Your task to perform on an android device: turn on showing notifications on the lock screen Image 0: 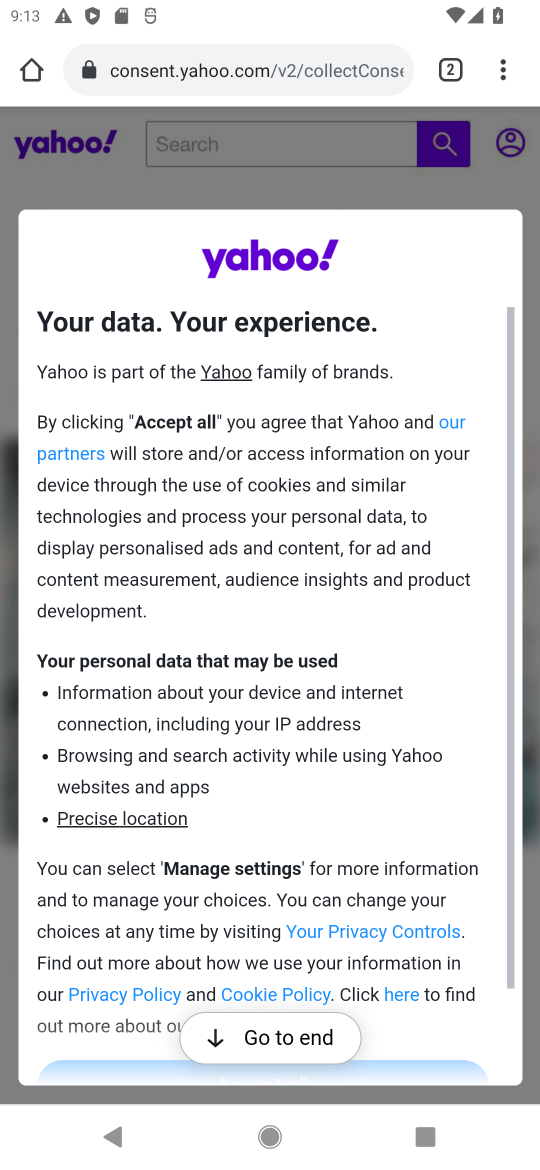
Step 0: press home button
Your task to perform on an android device: turn on showing notifications on the lock screen Image 1: 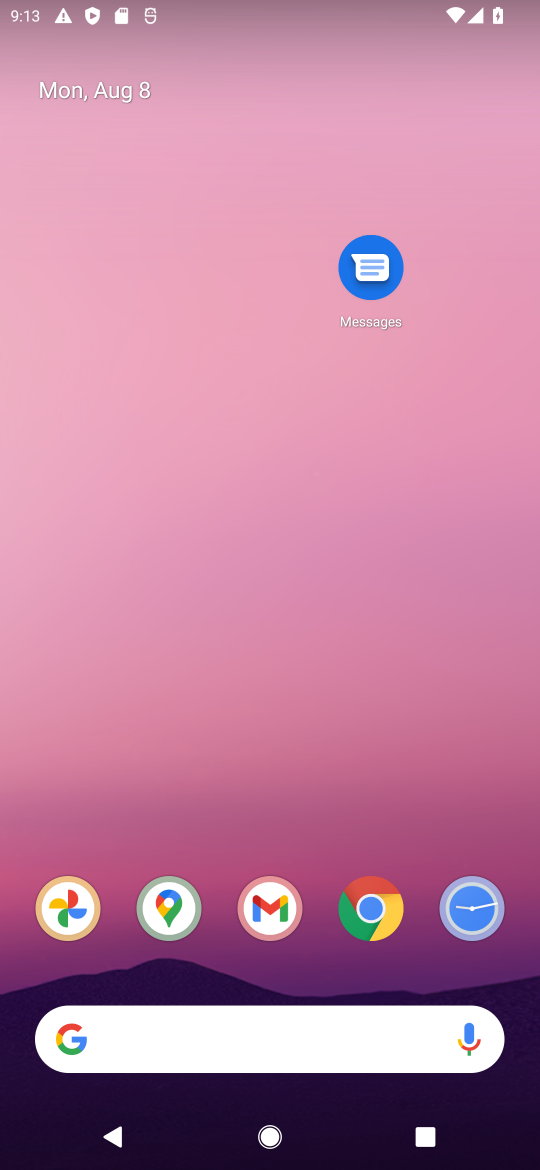
Step 1: drag from (256, 814) to (303, 32)
Your task to perform on an android device: turn on showing notifications on the lock screen Image 2: 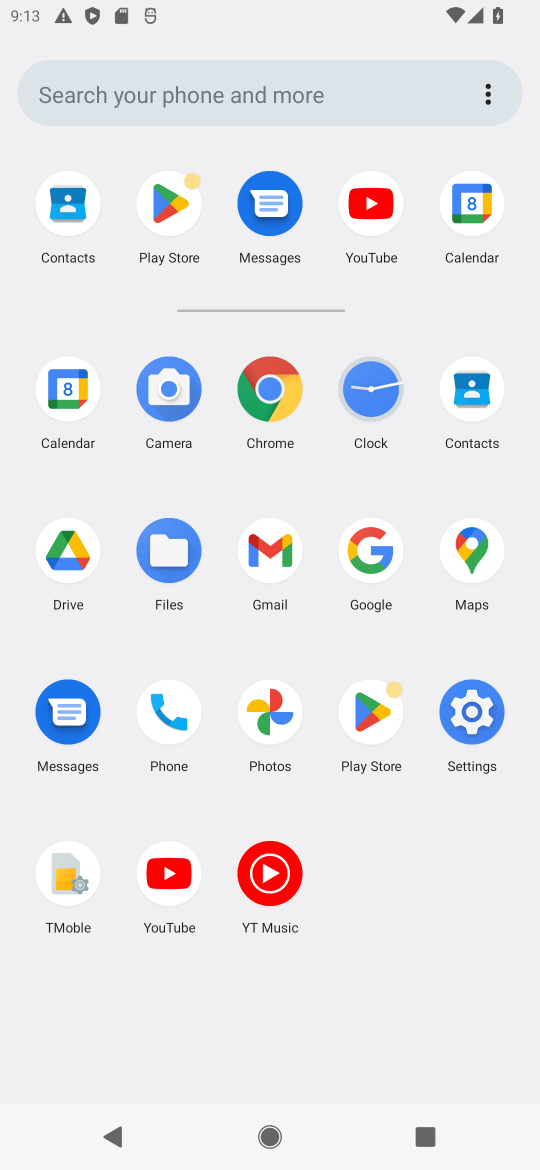
Step 2: click (498, 721)
Your task to perform on an android device: turn on showing notifications on the lock screen Image 3: 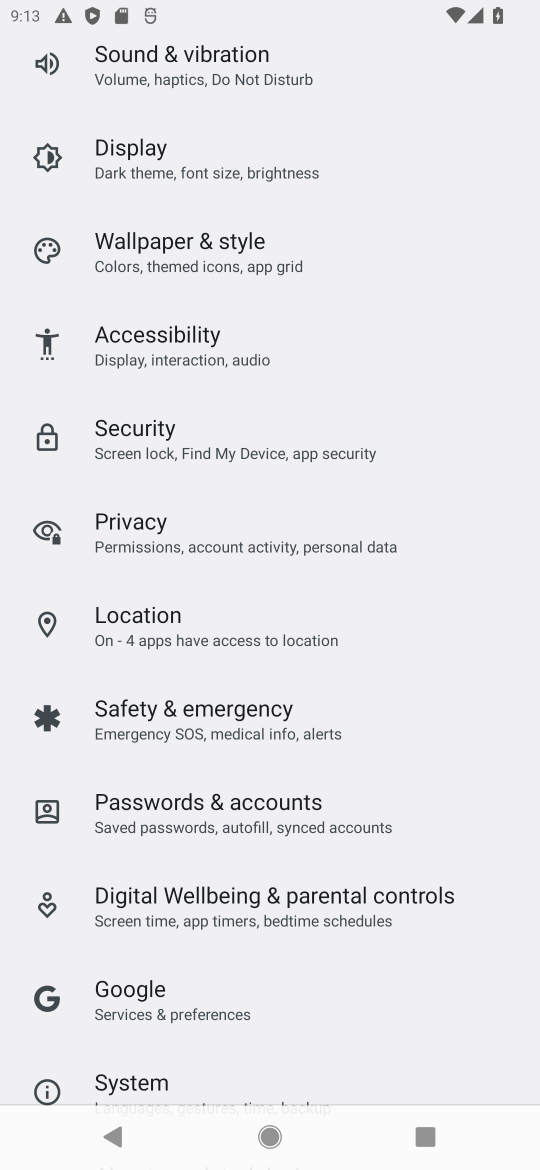
Step 3: drag from (252, 483) to (215, 858)
Your task to perform on an android device: turn on showing notifications on the lock screen Image 4: 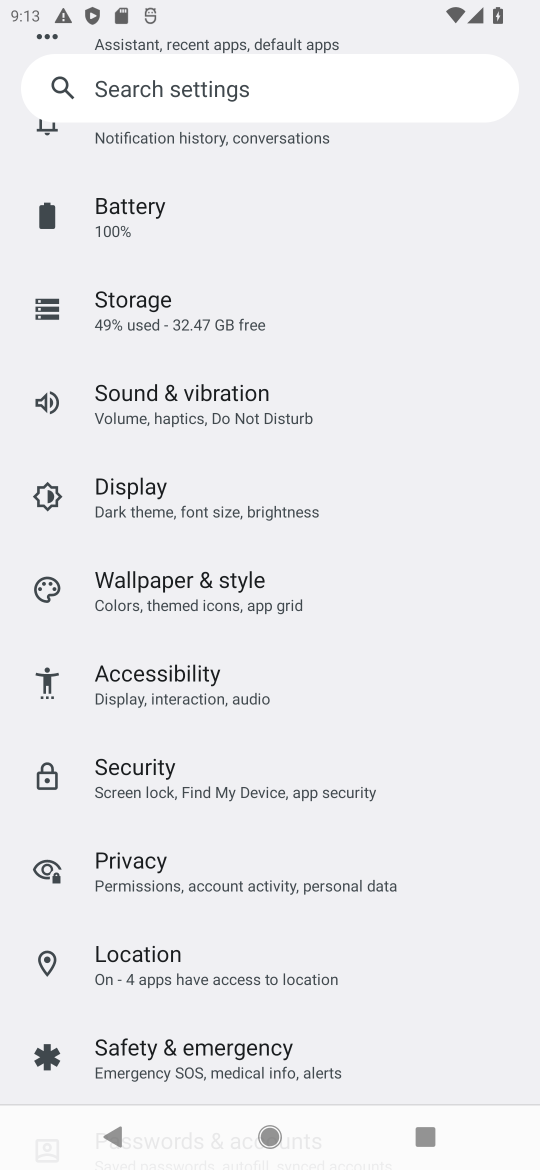
Step 4: drag from (300, 153) to (256, 1022)
Your task to perform on an android device: turn on showing notifications on the lock screen Image 5: 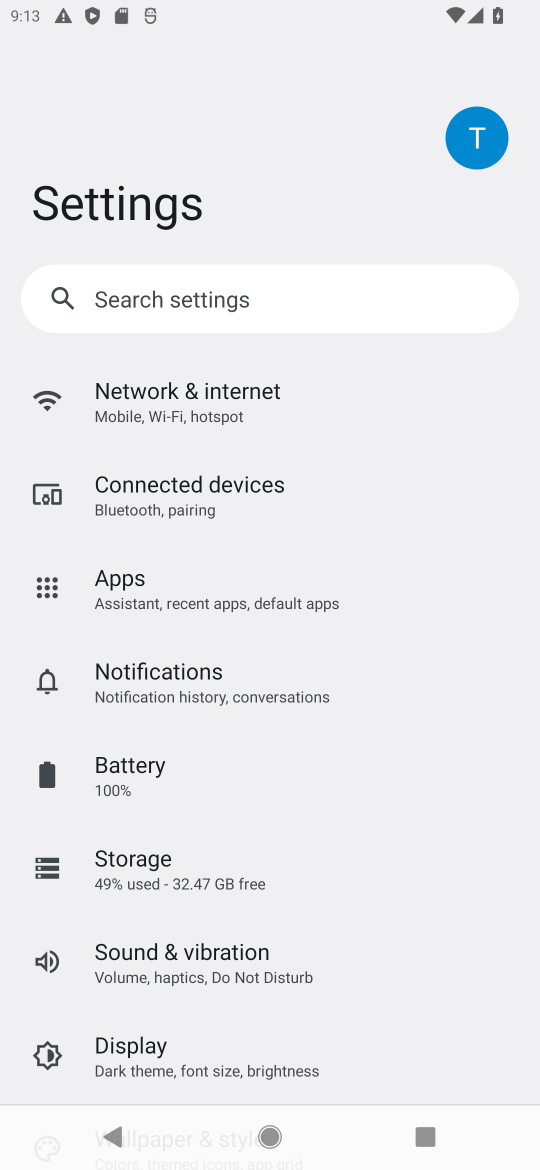
Step 5: click (214, 670)
Your task to perform on an android device: turn on showing notifications on the lock screen Image 6: 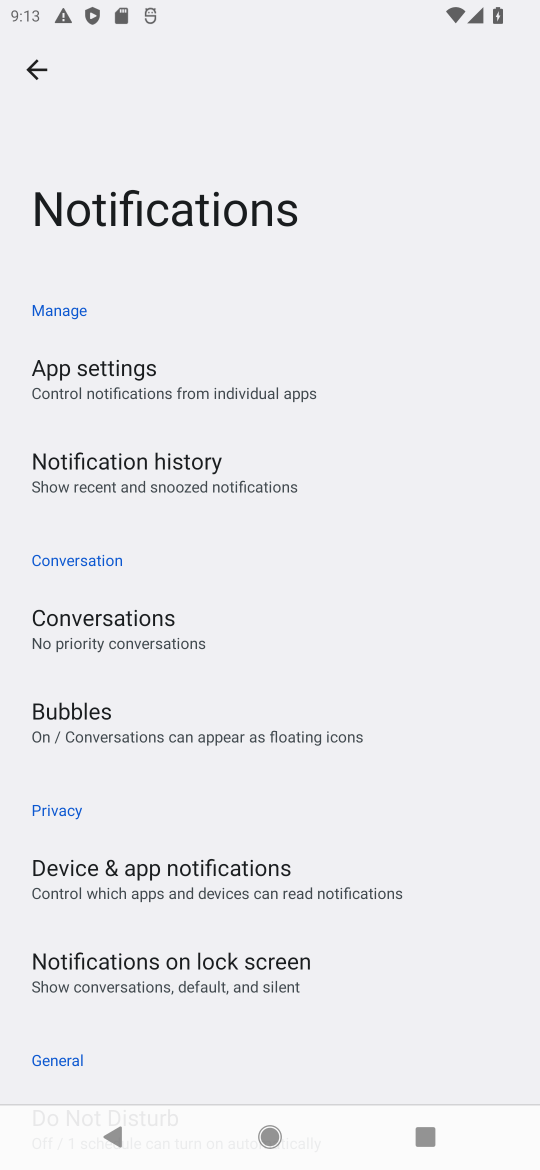
Step 6: task complete